Your task to perform on an android device: Go to internet settings Image 0: 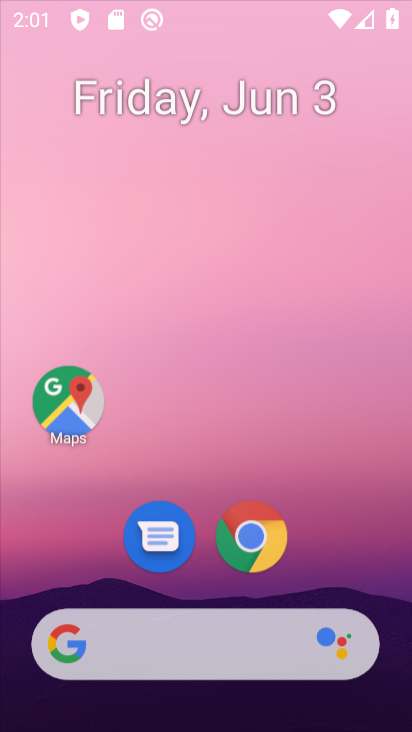
Step 0: drag from (346, 185) to (330, 72)
Your task to perform on an android device: Go to internet settings Image 1: 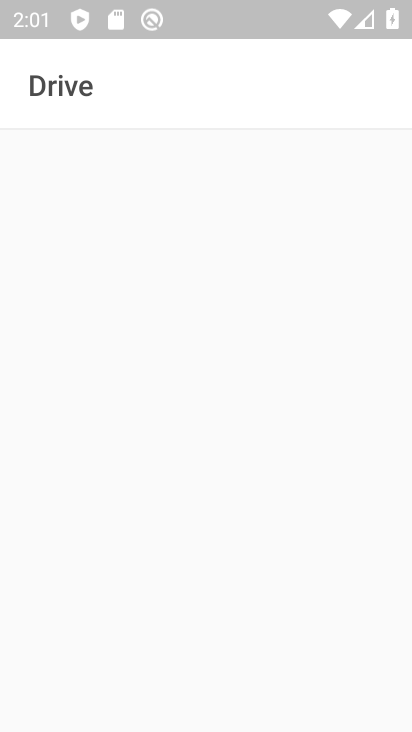
Step 1: press home button
Your task to perform on an android device: Go to internet settings Image 2: 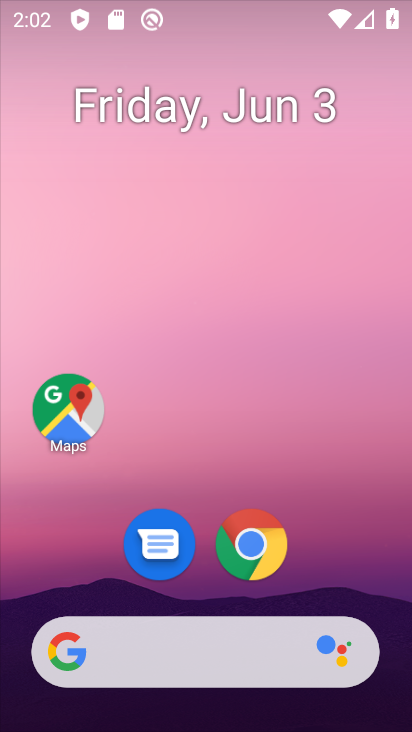
Step 2: drag from (380, 516) to (261, 10)
Your task to perform on an android device: Go to internet settings Image 3: 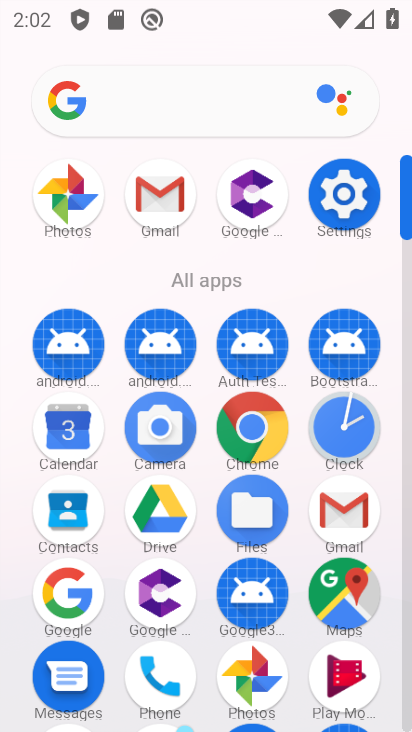
Step 3: click (369, 188)
Your task to perform on an android device: Go to internet settings Image 4: 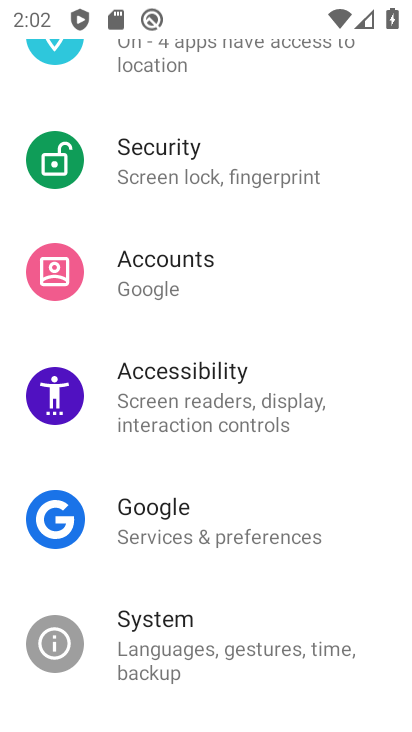
Step 4: drag from (359, 171) to (325, 614)
Your task to perform on an android device: Go to internet settings Image 5: 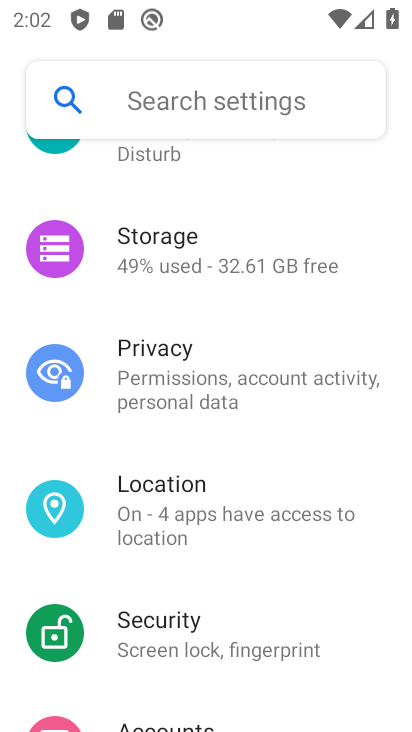
Step 5: drag from (356, 265) to (348, 605)
Your task to perform on an android device: Go to internet settings Image 6: 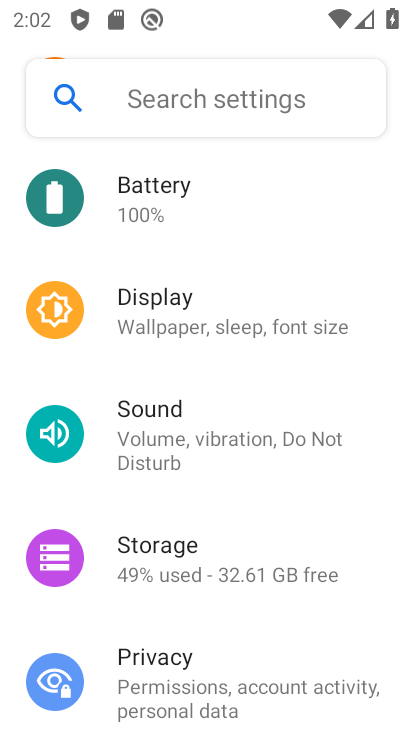
Step 6: drag from (342, 277) to (320, 593)
Your task to perform on an android device: Go to internet settings Image 7: 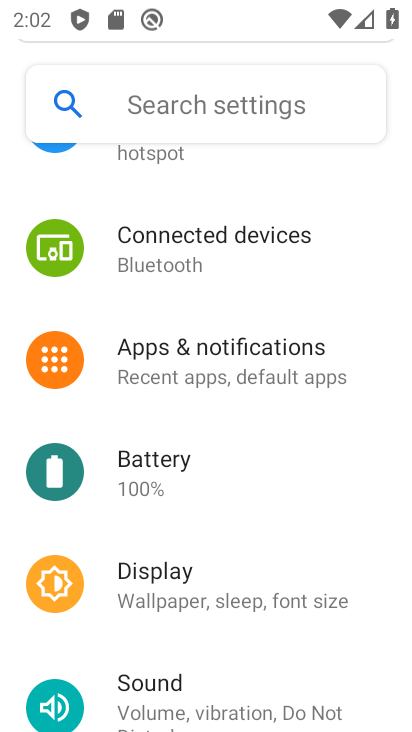
Step 7: drag from (237, 252) to (229, 636)
Your task to perform on an android device: Go to internet settings Image 8: 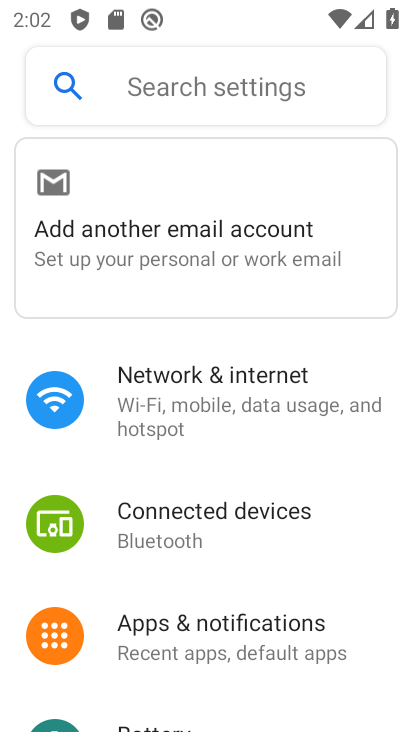
Step 8: click (204, 406)
Your task to perform on an android device: Go to internet settings Image 9: 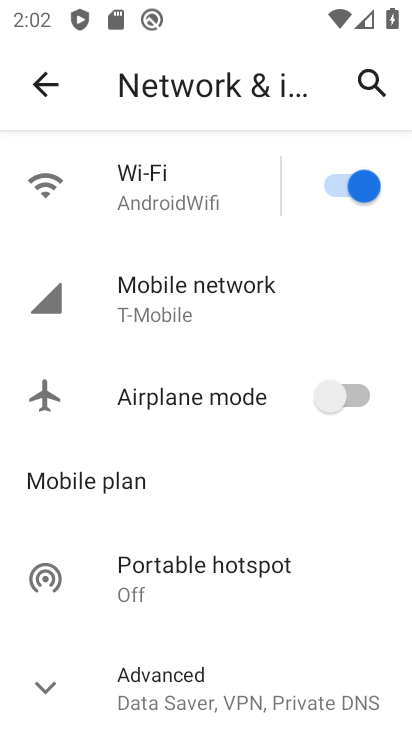
Step 9: click (190, 316)
Your task to perform on an android device: Go to internet settings Image 10: 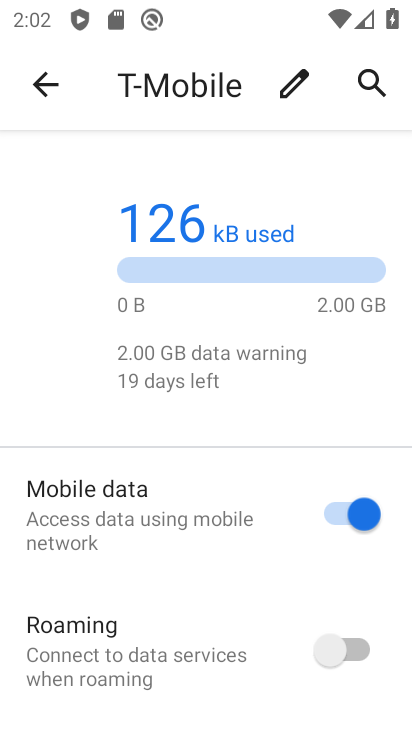
Step 10: task complete